Your task to perform on an android device: Search for "apple airpods" on walmart, select the first entry, add it to the cart, then select checkout. Image 0: 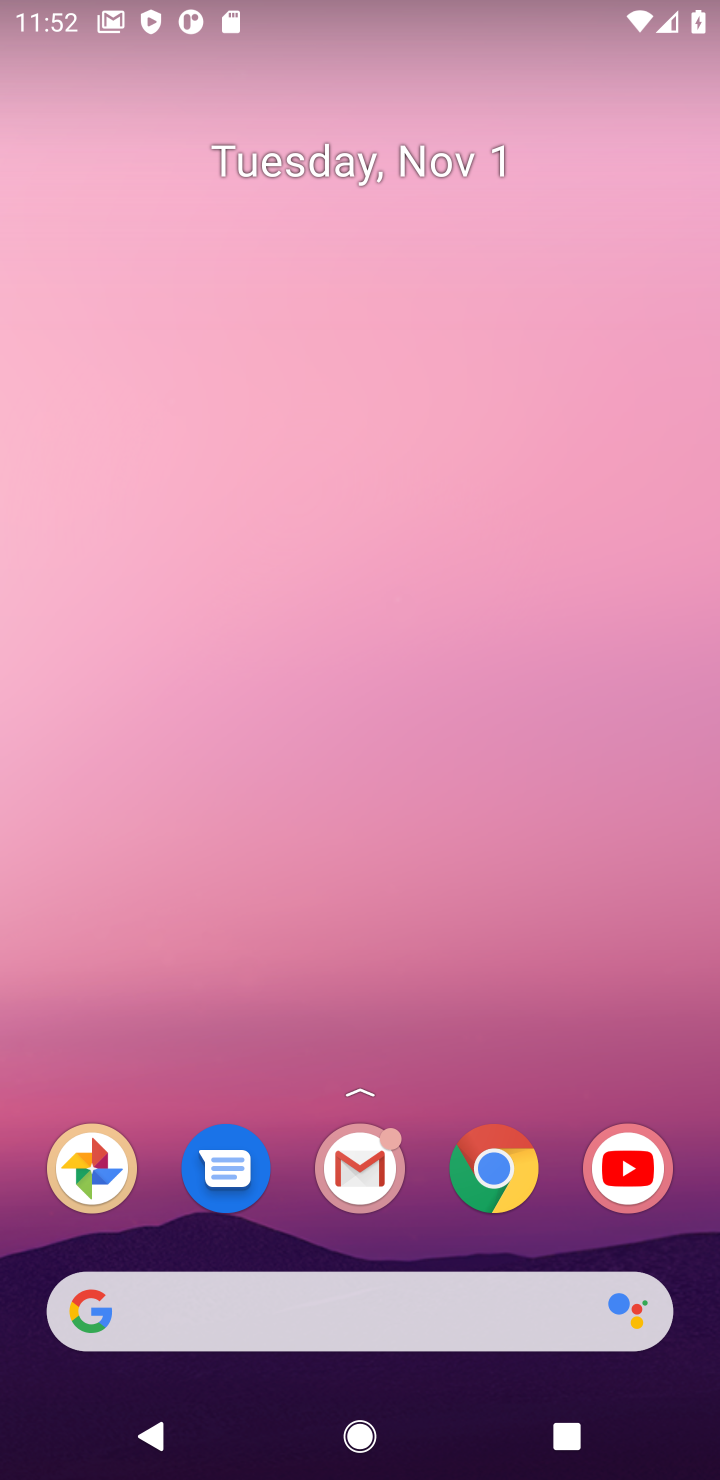
Step 0: press home button
Your task to perform on an android device: Search for "apple airpods" on walmart, select the first entry, add it to the cart, then select checkout. Image 1: 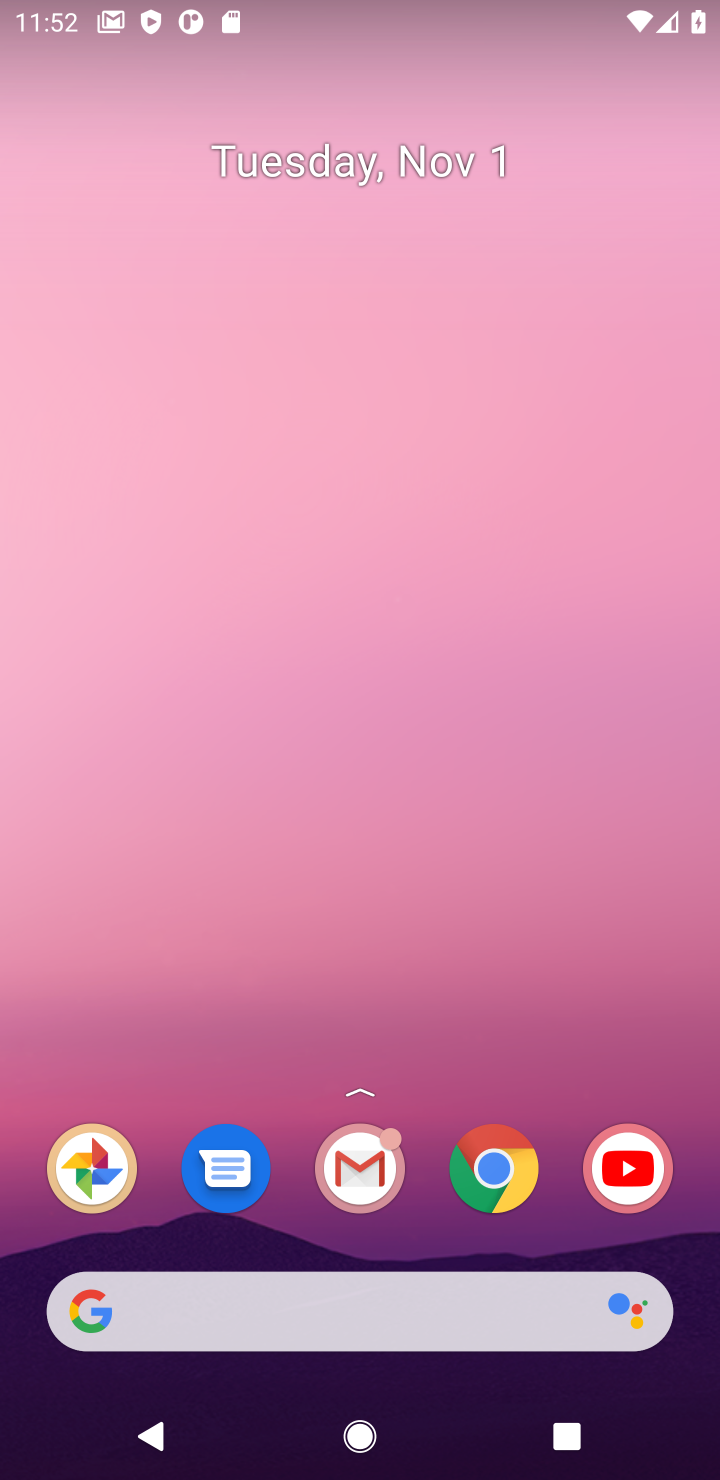
Step 1: click (495, 1178)
Your task to perform on an android device: Search for "apple airpods" on walmart, select the first entry, add it to the cart, then select checkout. Image 2: 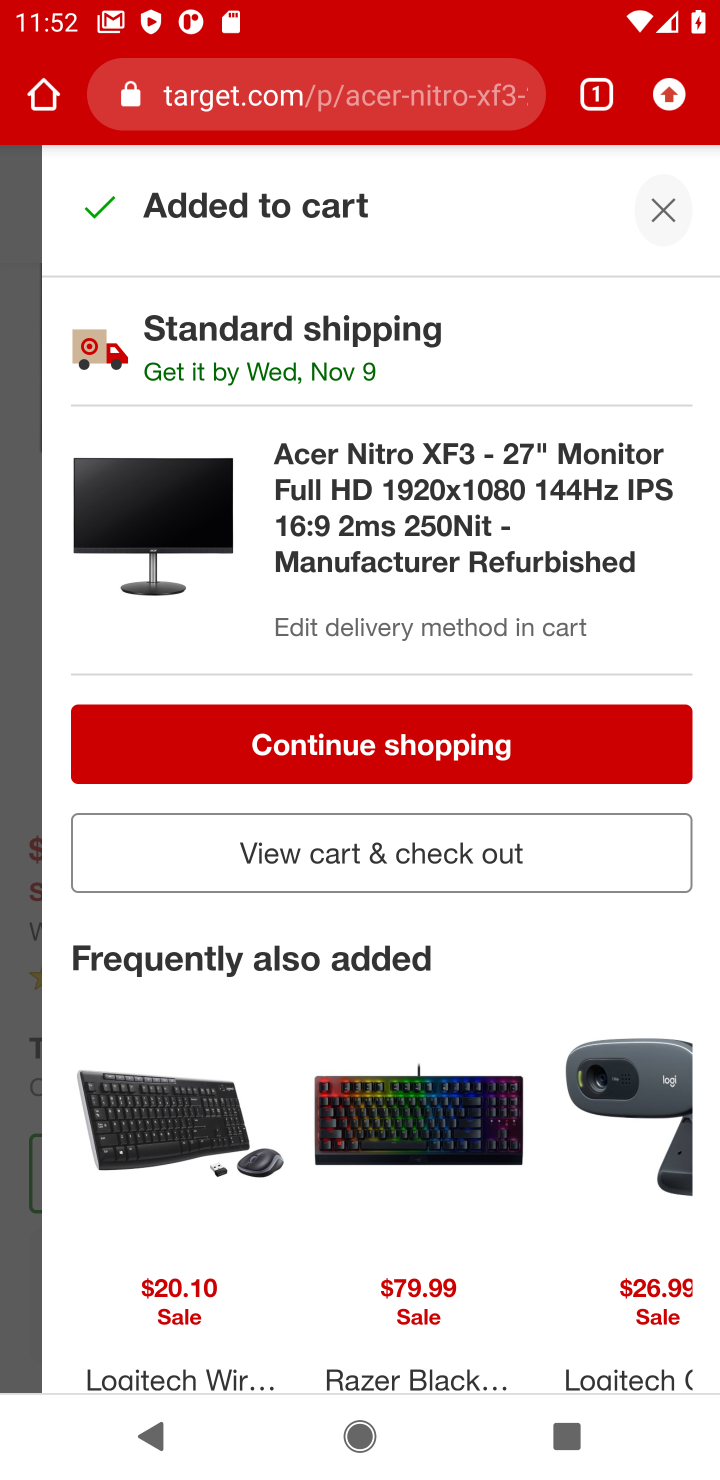
Step 2: click (476, 80)
Your task to perform on an android device: Search for "apple airpods" on walmart, select the first entry, add it to the cart, then select checkout. Image 3: 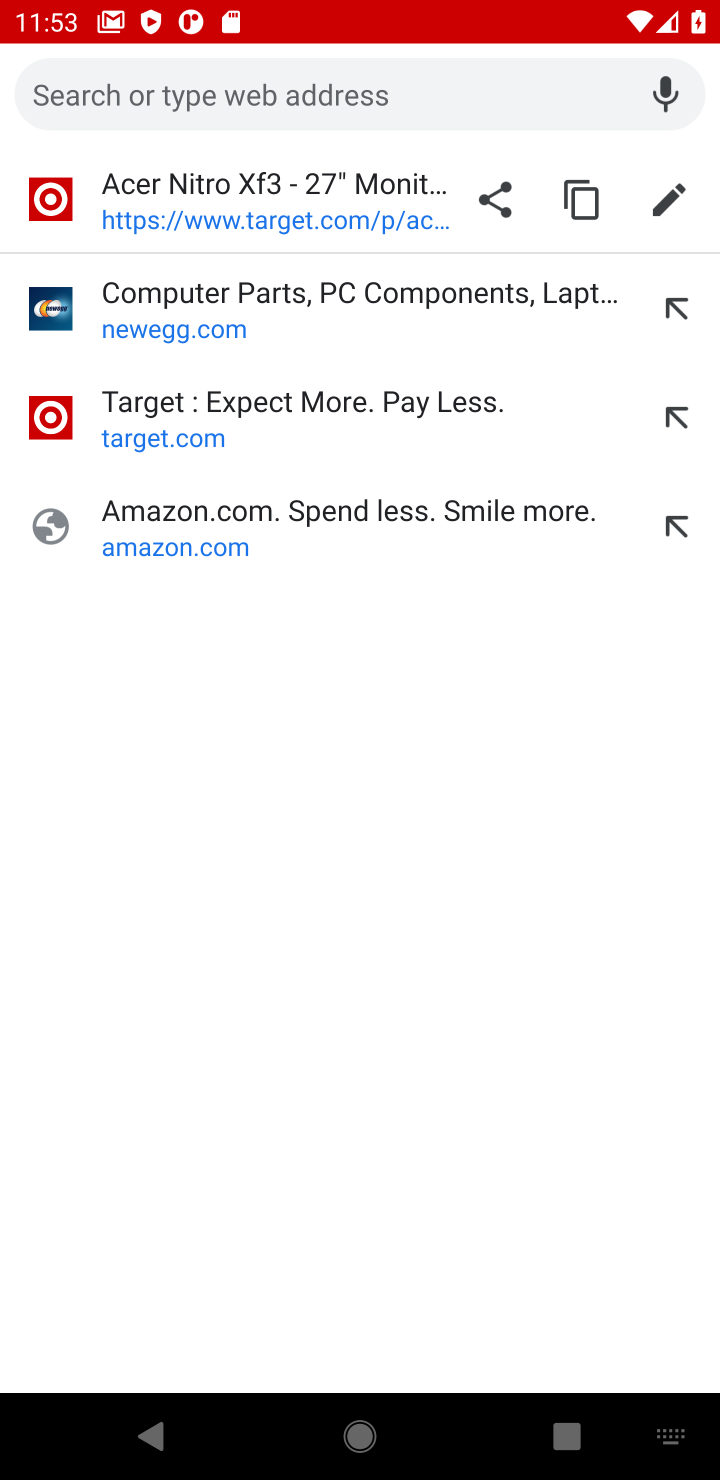
Step 3: type "walmart"
Your task to perform on an android device: Search for "apple airpods" on walmart, select the first entry, add it to the cart, then select checkout. Image 4: 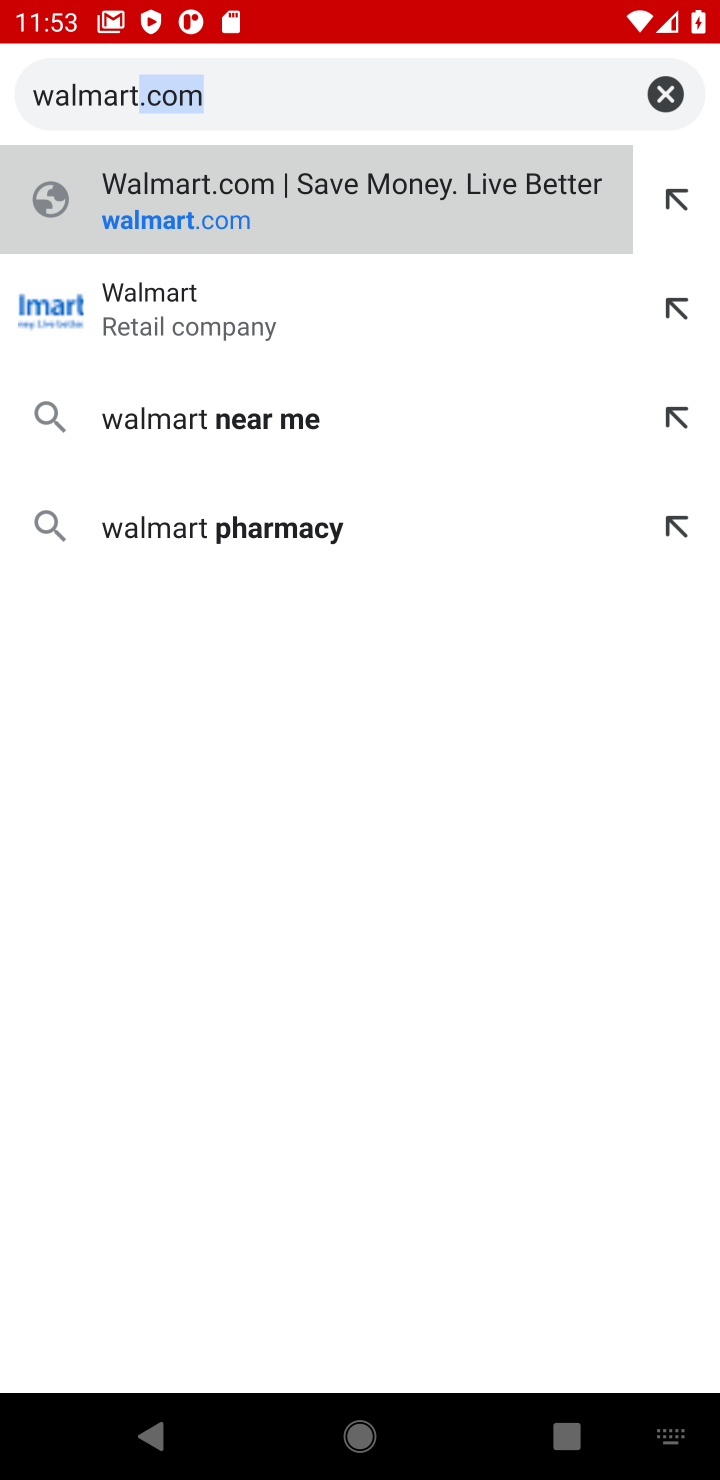
Step 4: press enter
Your task to perform on an android device: Search for "apple airpods" on walmart, select the first entry, add it to the cart, then select checkout. Image 5: 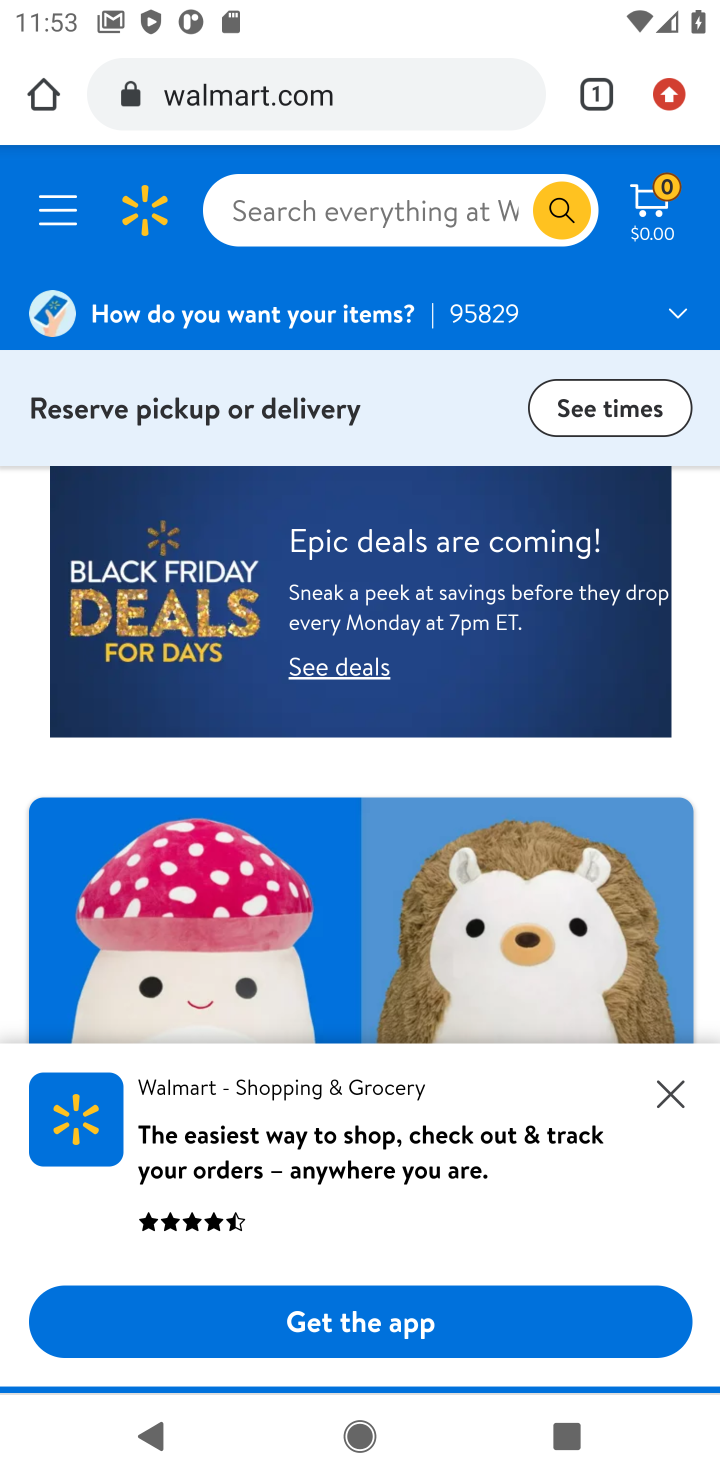
Step 5: click (396, 221)
Your task to perform on an android device: Search for "apple airpods" on walmart, select the first entry, add it to the cart, then select checkout. Image 6: 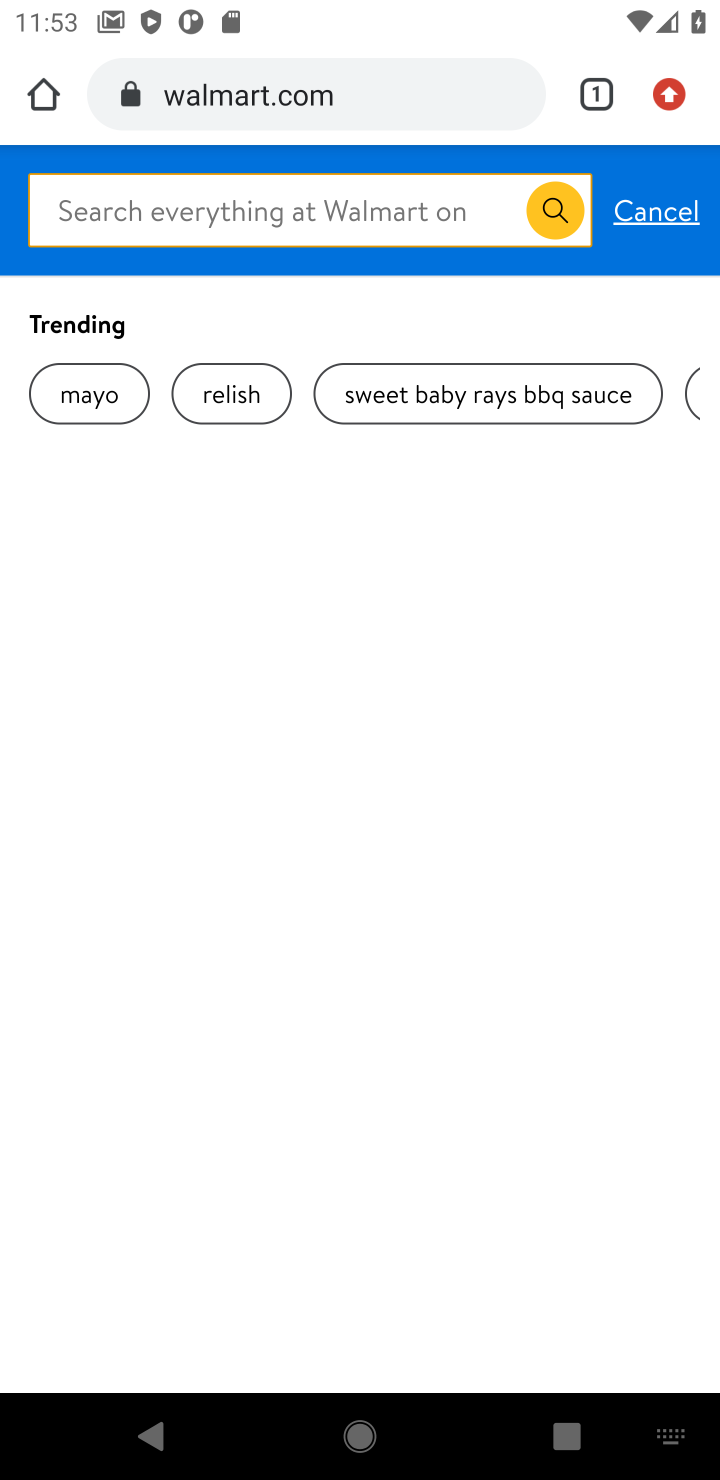
Step 6: type "apple airpods"
Your task to perform on an android device: Search for "apple airpods" on walmart, select the first entry, add it to the cart, then select checkout. Image 7: 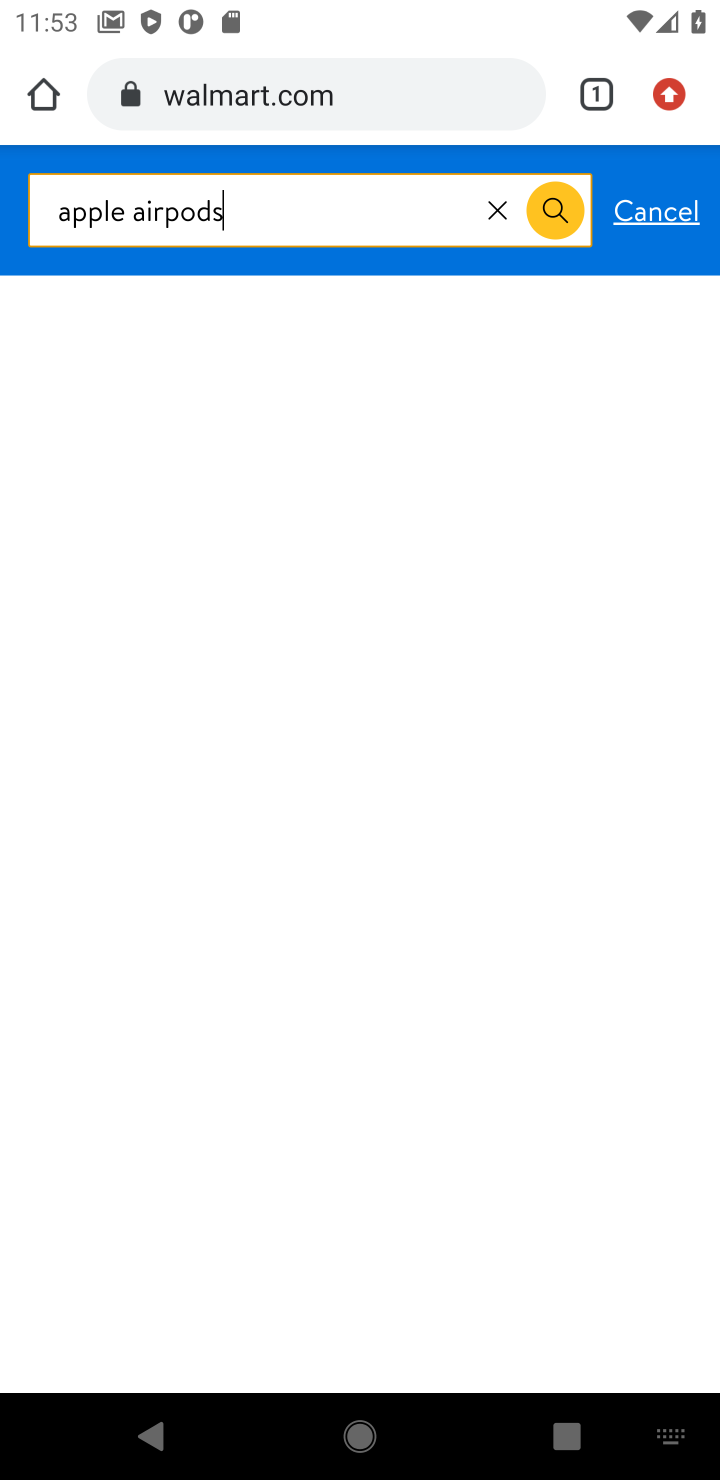
Step 7: press enter
Your task to perform on an android device: Search for "apple airpods" on walmart, select the first entry, add it to the cart, then select checkout. Image 8: 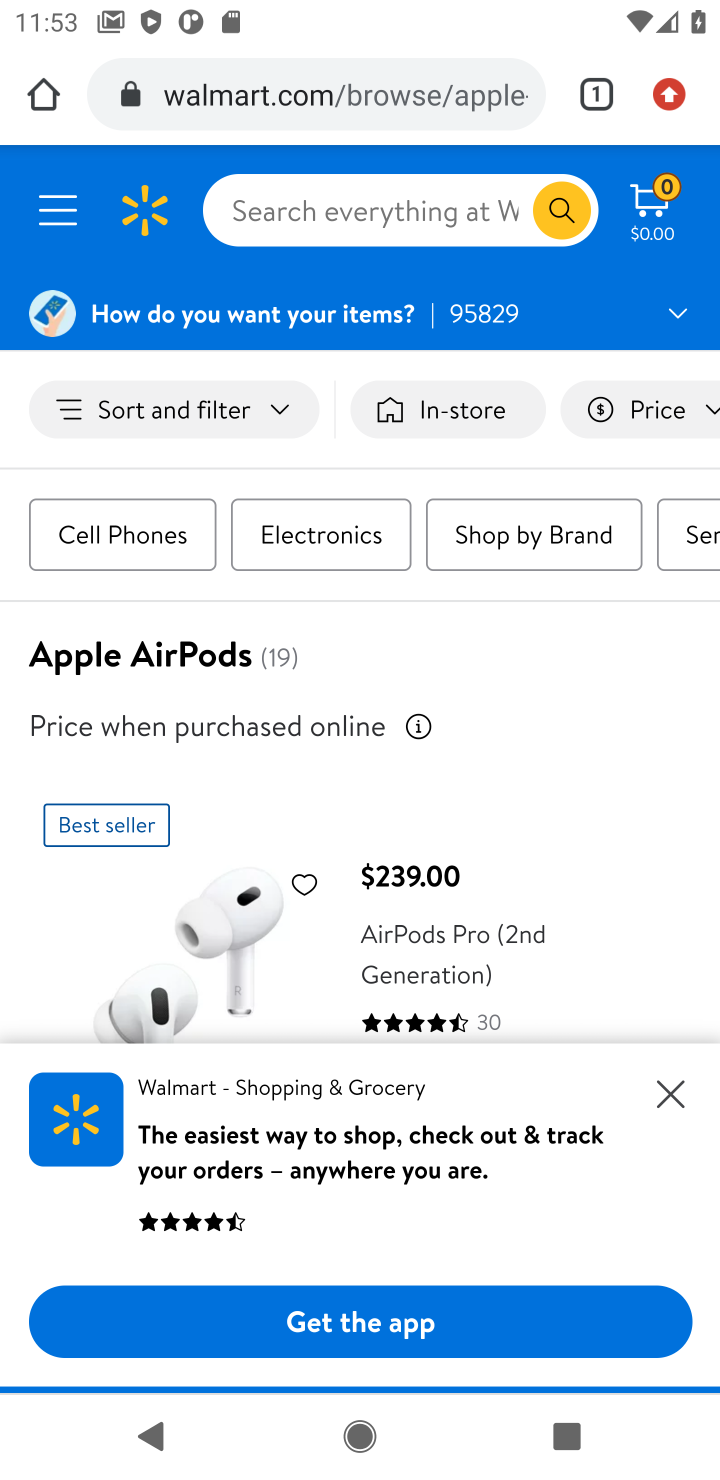
Step 8: click (496, 925)
Your task to perform on an android device: Search for "apple airpods" on walmart, select the first entry, add it to the cart, then select checkout. Image 9: 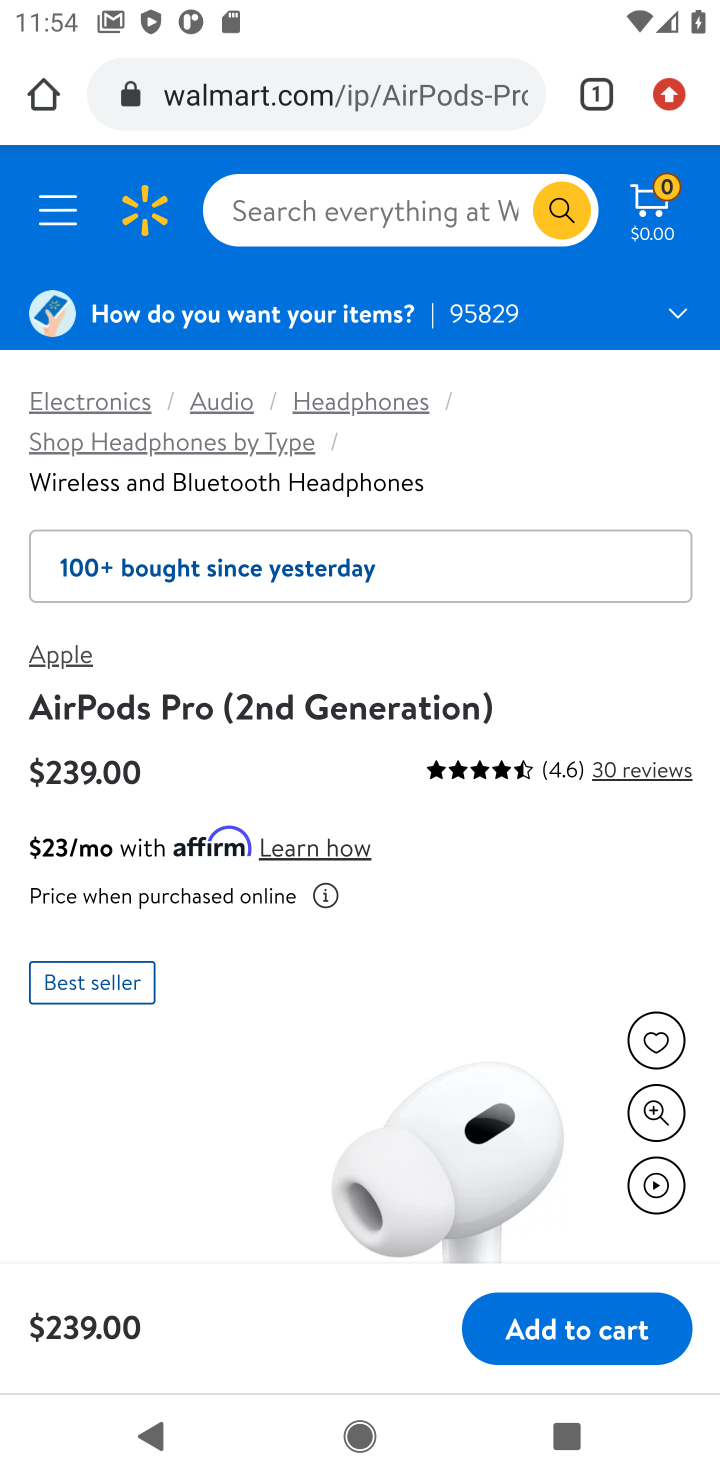
Step 9: click (558, 1329)
Your task to perform on an android device: Search for "apple airpods" on walmart, select the first entry, add it to the cart, then select checkout. Image 10: 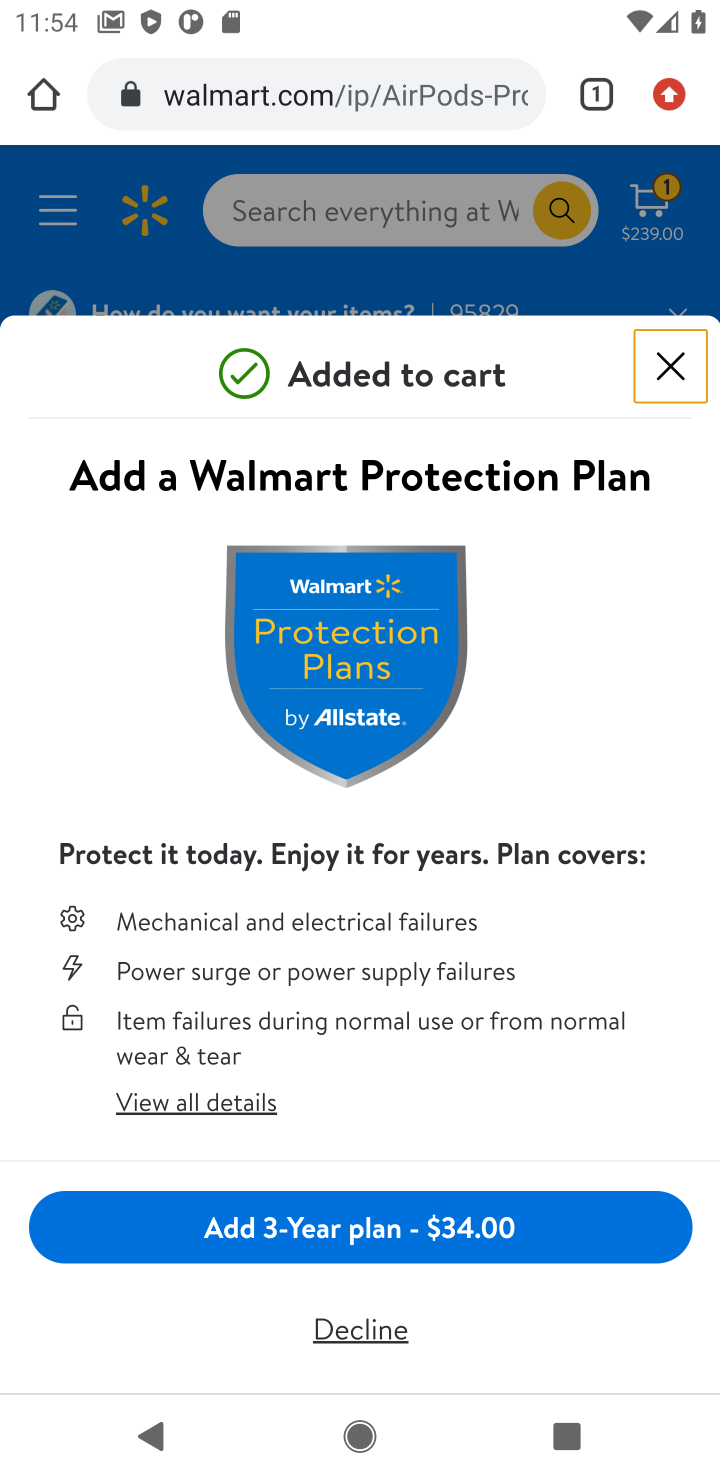
Step 10: click (667, 356)
Your task to perform on an android device: Search for "apple airpods" on walmart, select the first entry, add it to the cart, then select checkout. Image 11: 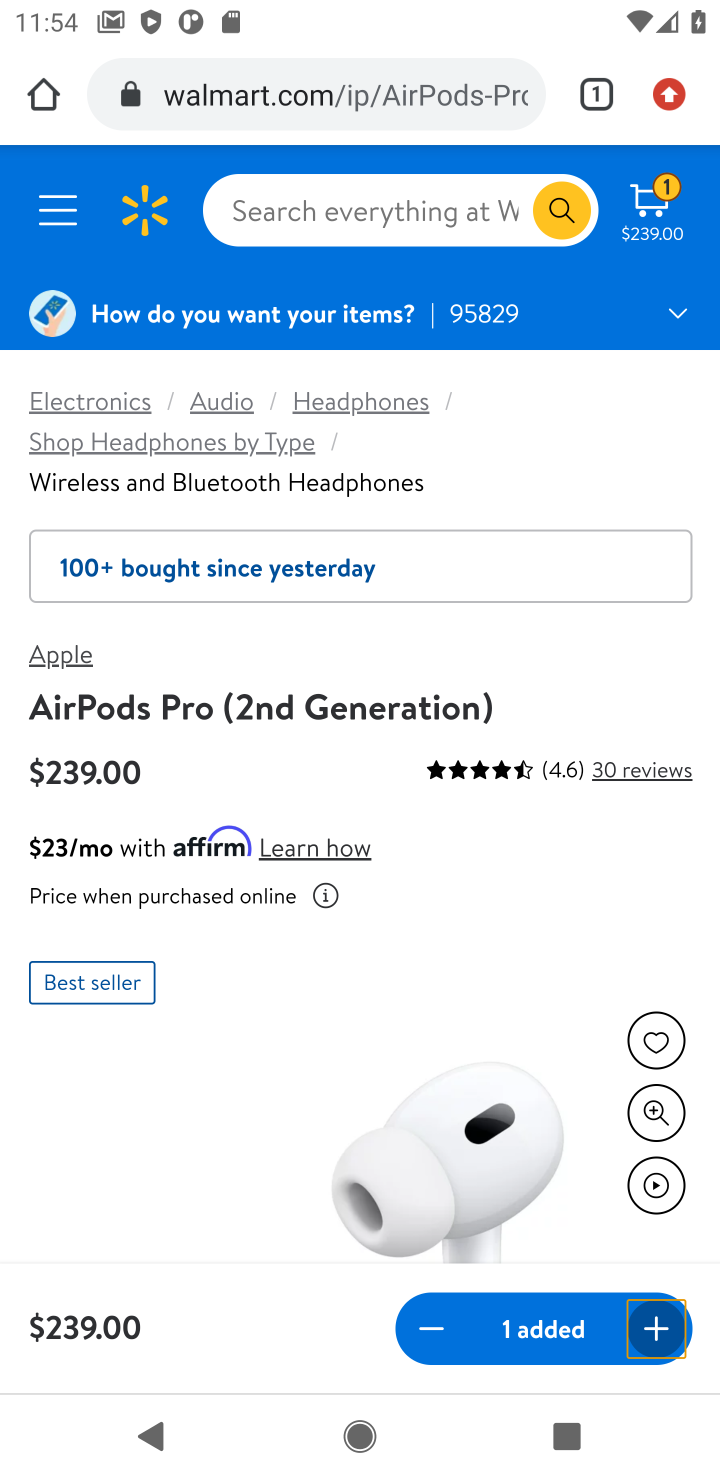
Step 11: click (660, 202)
Your task to perform on an android device: Search for "apple airpods" on walmart, select the first entry, add it to the cart, then select checkout. Image 12: 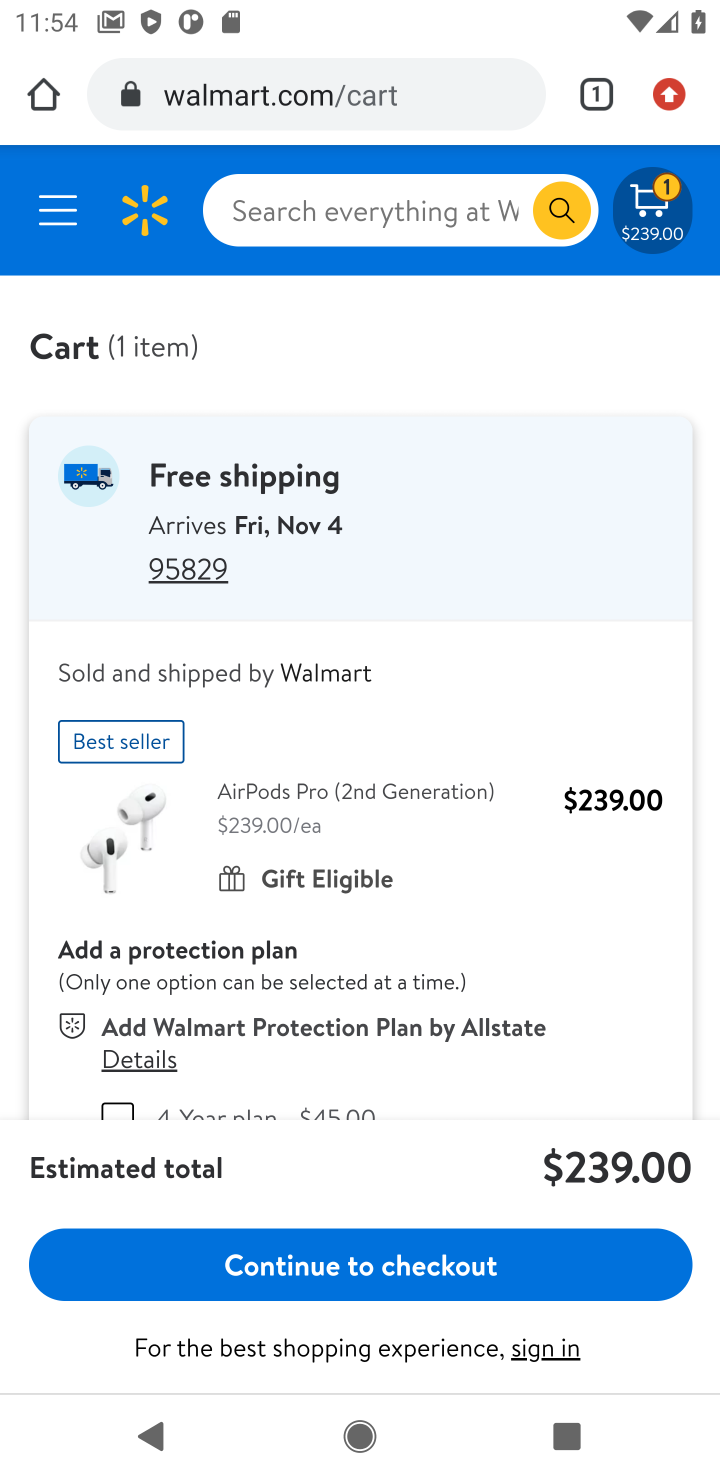
Step 12: click (345, 1268)
Your task to perform on an android device: Search for "apple airpods" on walmart, select the first entry, add it to the cart, then select checkout. Image 13: 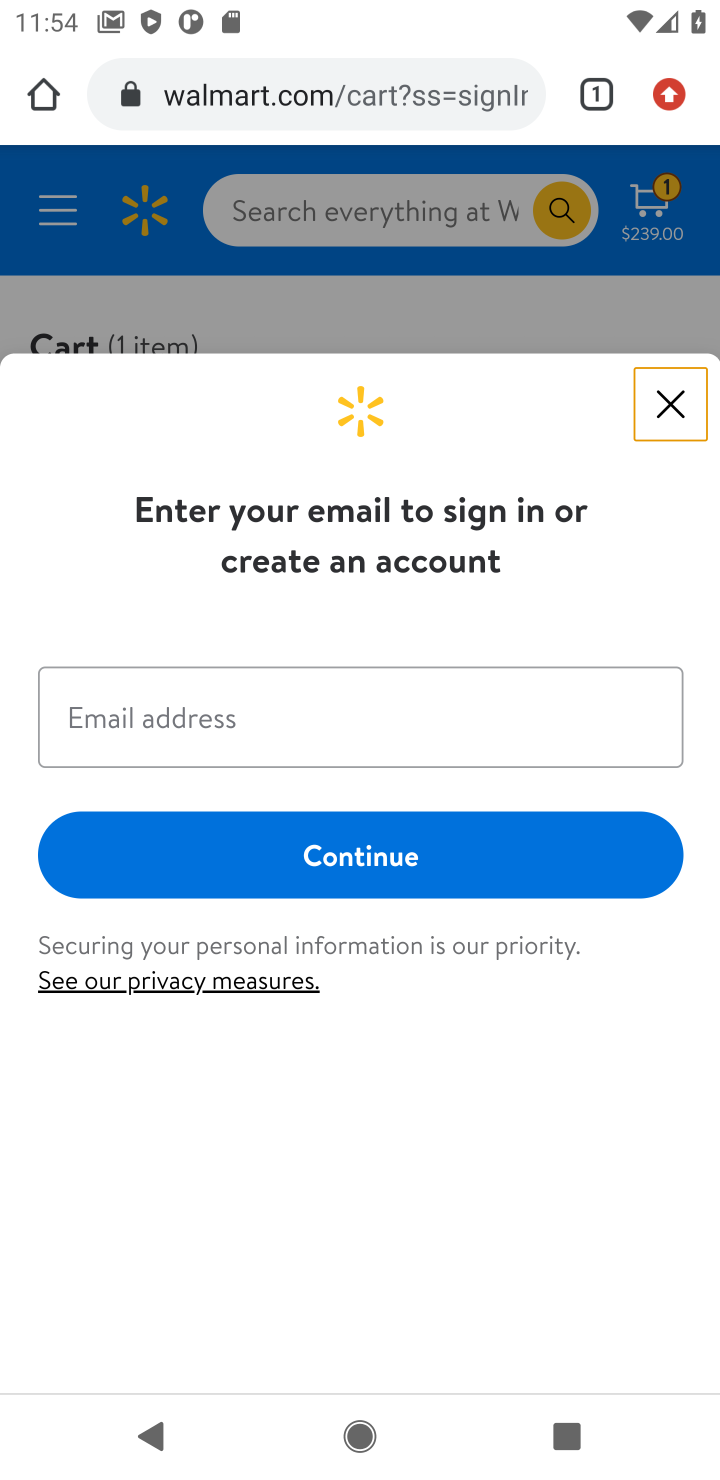
Step 13: task complete